Your task to perform on an android device: What's the weather going to be tomorrow? Image 0: 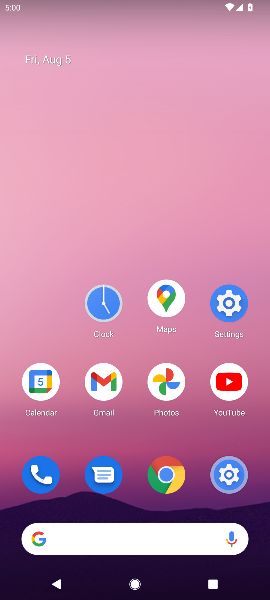
Step 0: drag from (29, 184) to (270, 146)
Your task to perform on an android device: What's the weather going to be tomorrow? Image 1: 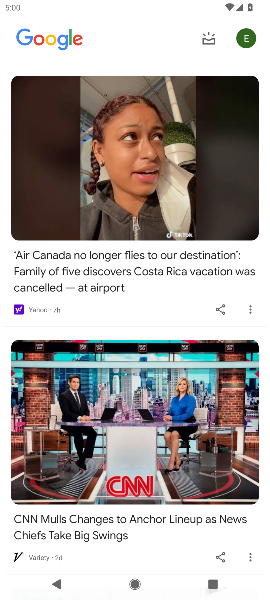
Step 1: task complete